Your task to perform on an android device: Open Reddit.com Image 0: 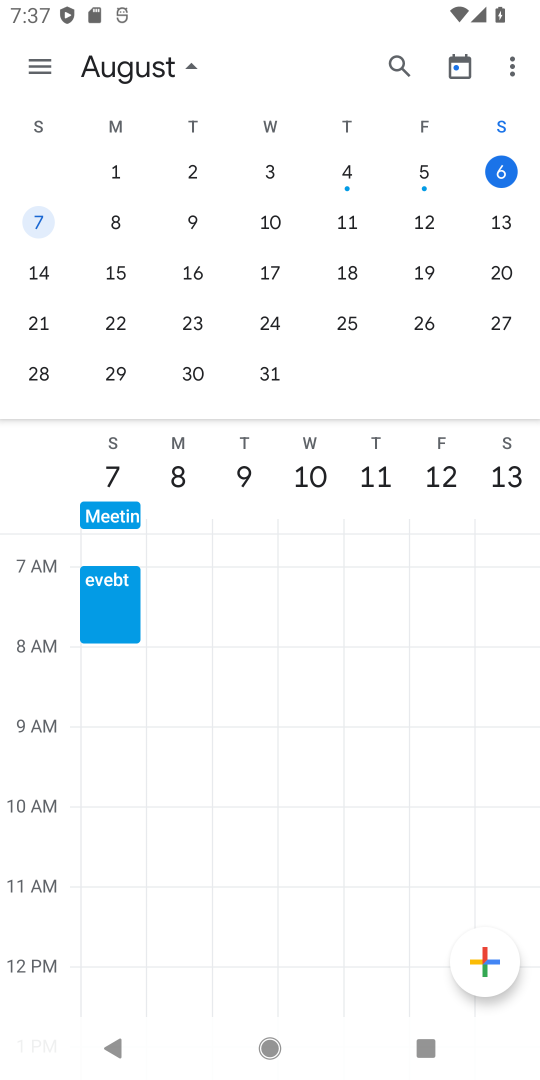
Step 0: press back button
Your task to perform on an android device: Open Reddit.com Image 1: 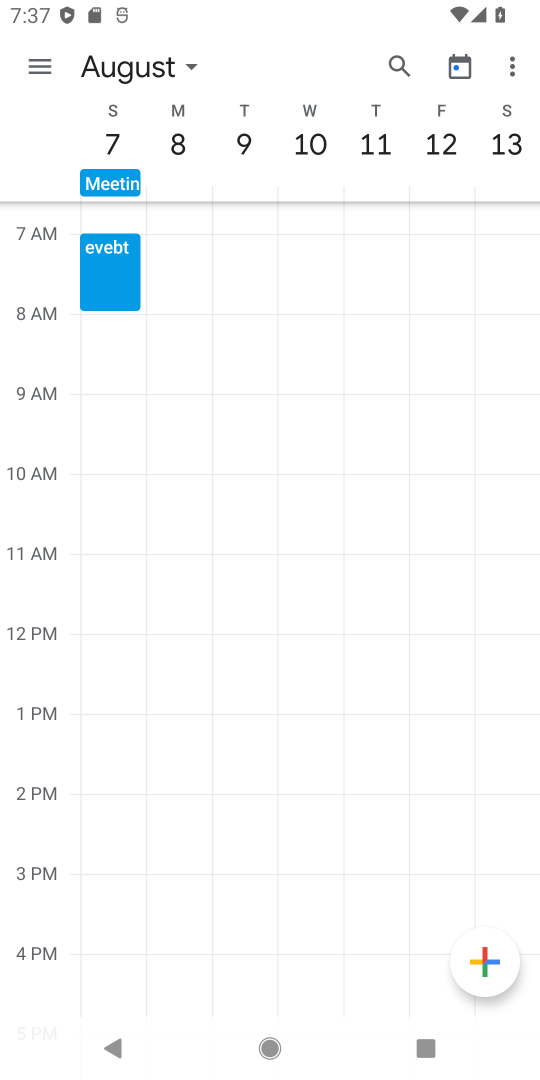
Step 1: press home button
Your task to perform on an android device: Open Reddit.com Image 2: 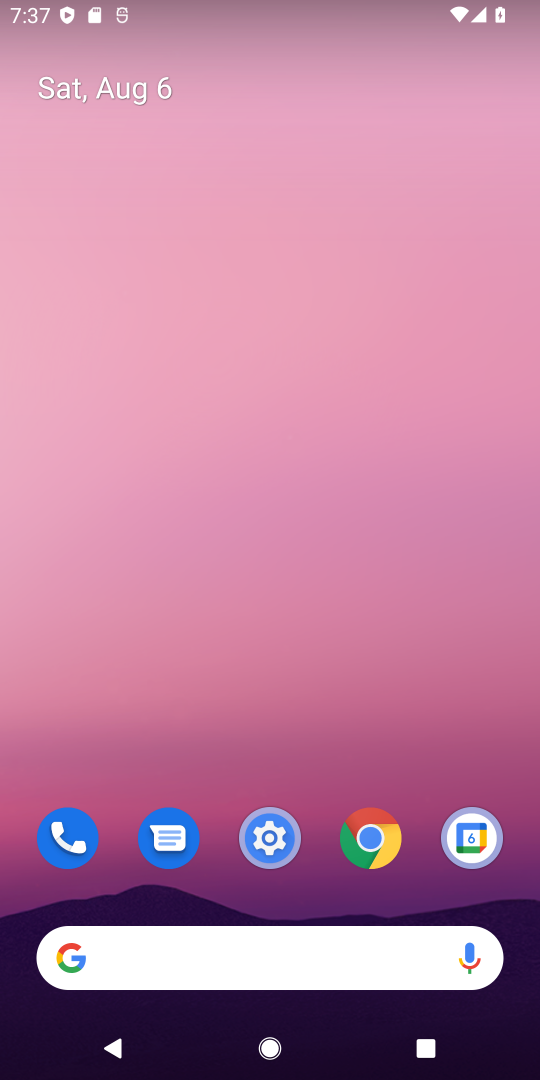
Step 2: click (360, 833)
Your task to perform on an android device: Open Reddit.com Image 3: 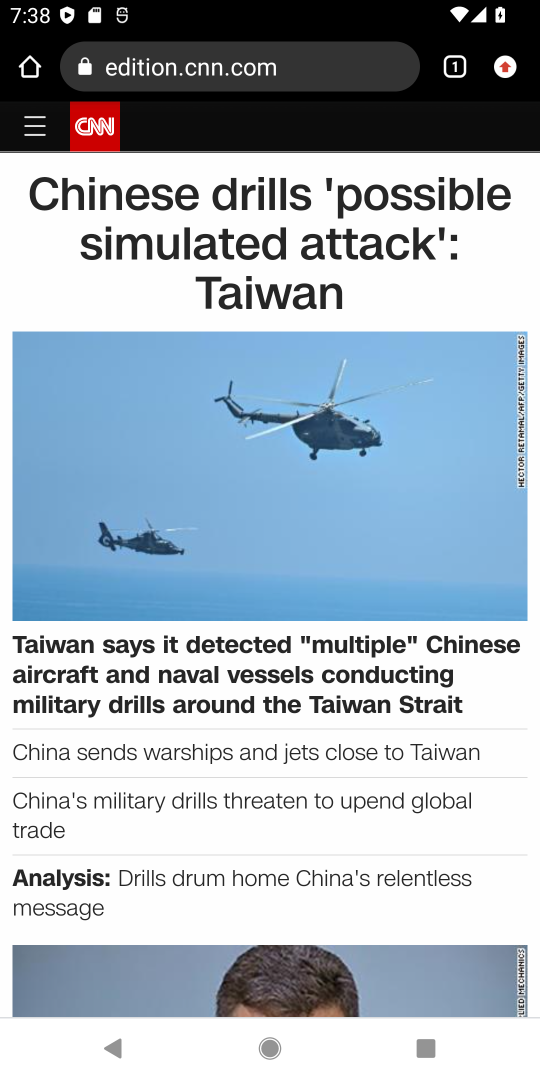
Step 3: click (251, 62)
Your task to perform on an android device: Open Reddit.com Image 4: 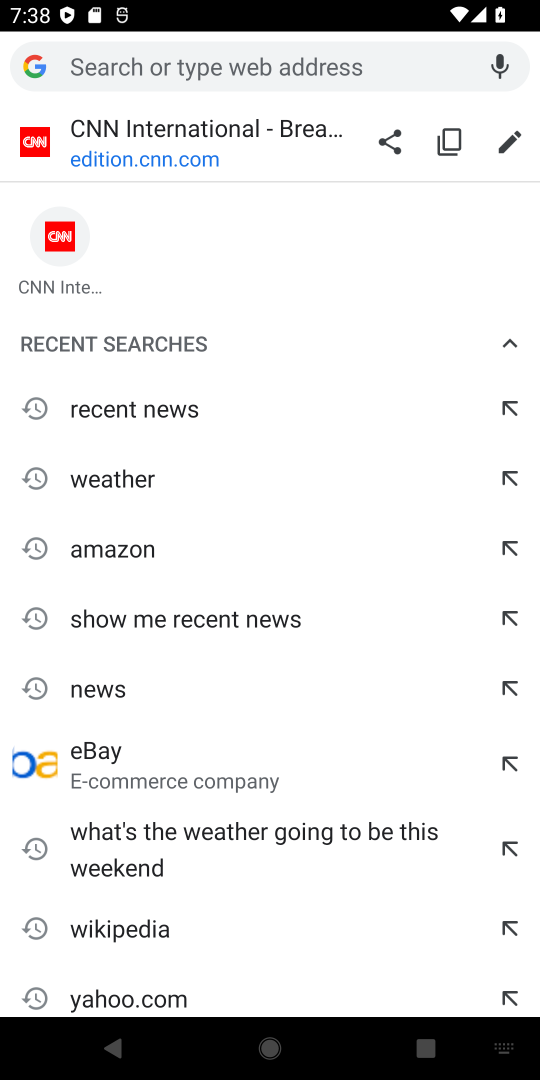
Step 4: type "www.reddit.com"
Your task to perform on an android device: Open Reddit.com Image 5: 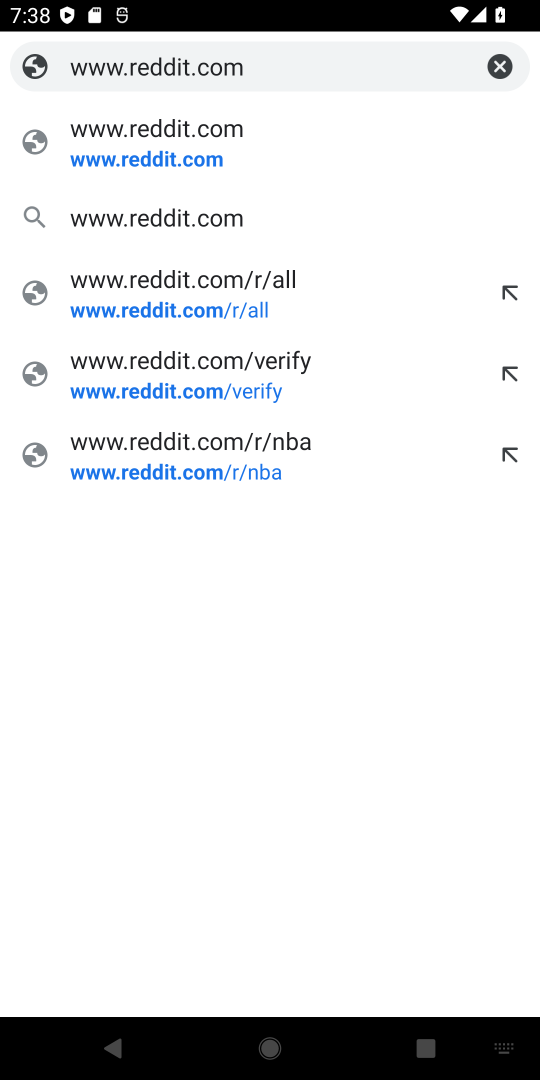
Step 5: click (172, 164)
Your task to perform on an android device: Open Reddit.com Image 6: 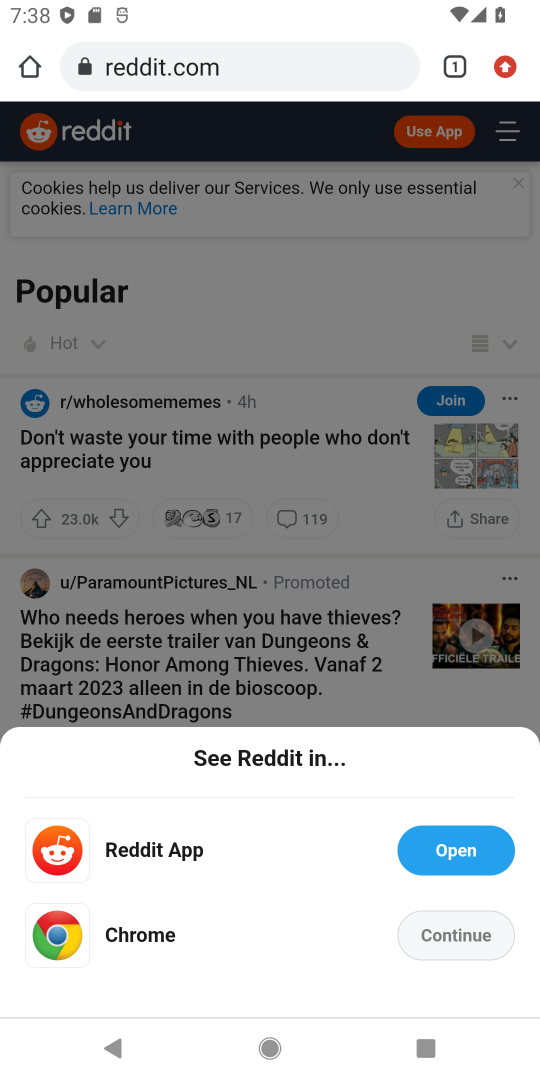
Step 6: click (431, 939)
Your task to perform on an android device: Open Reddit.com Image 7: 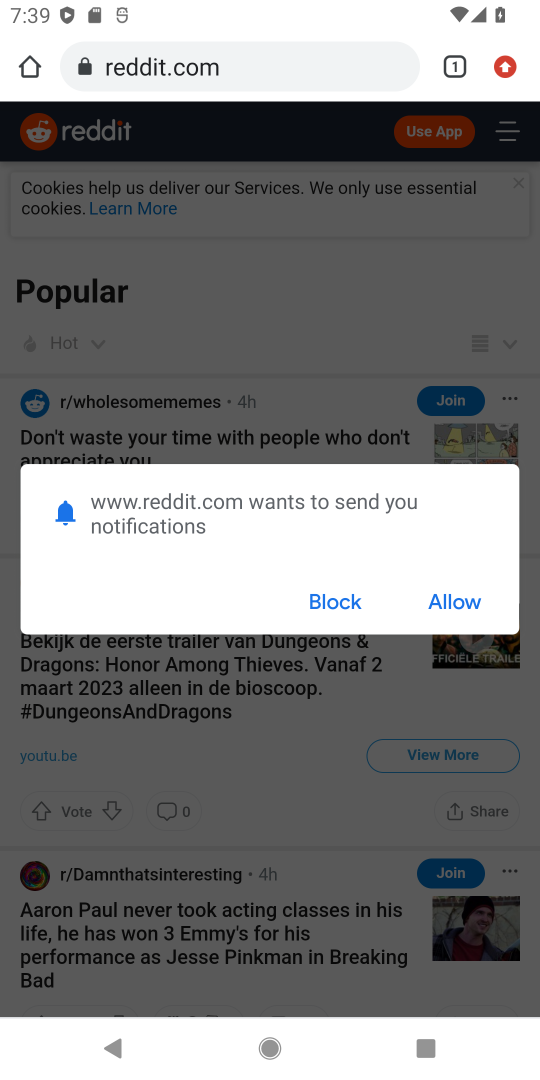
Step 7: click (452, 606)
Your task to perform on an android device: Open Reddit.com Image 8: 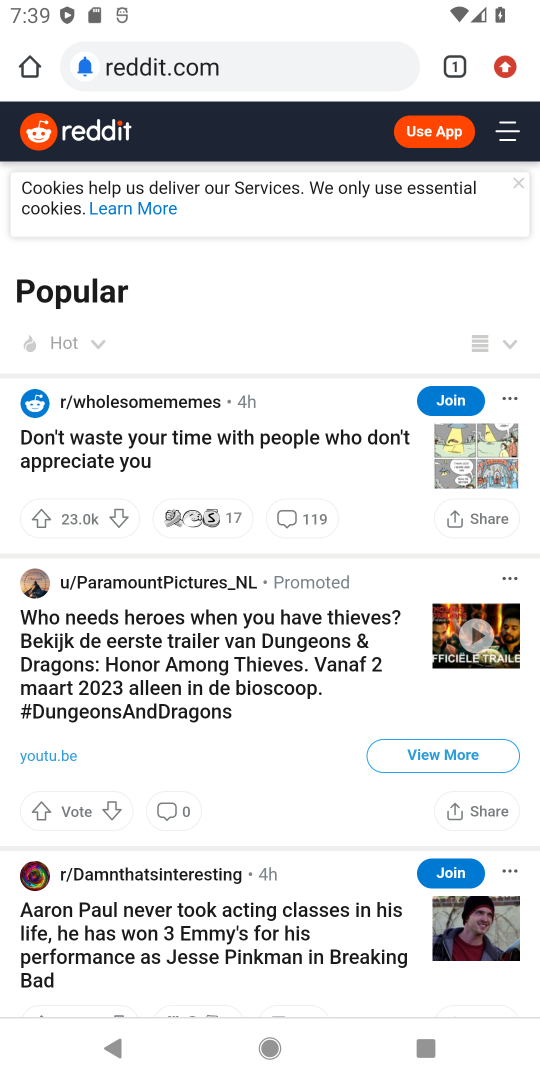
Step 8: task complete